Your task to perform on an android device: Check the settings for the Twitter app Image 0: 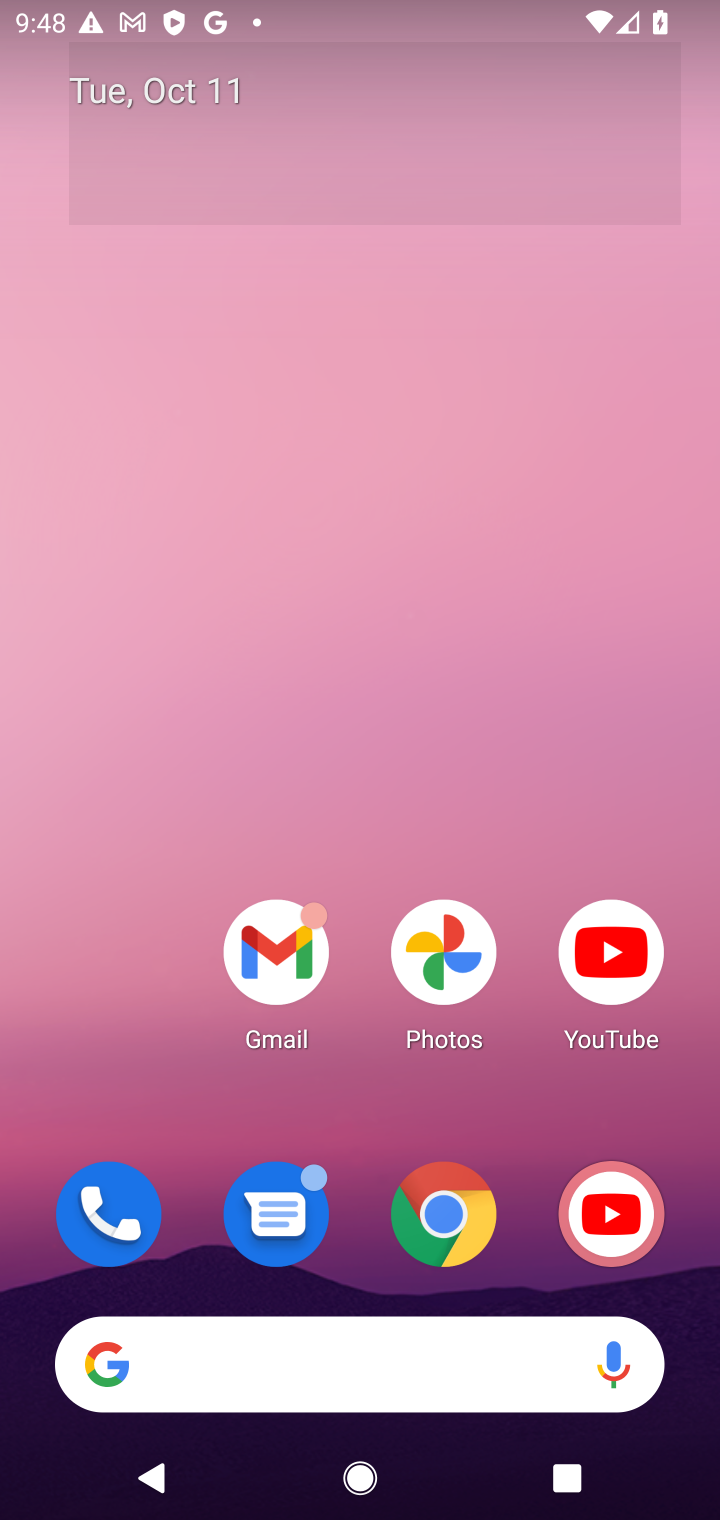
Step 0: drag from (425, 579) to (531, 5)
Your task to perform on an android device: Check the settings for the Twitter app Image 1: 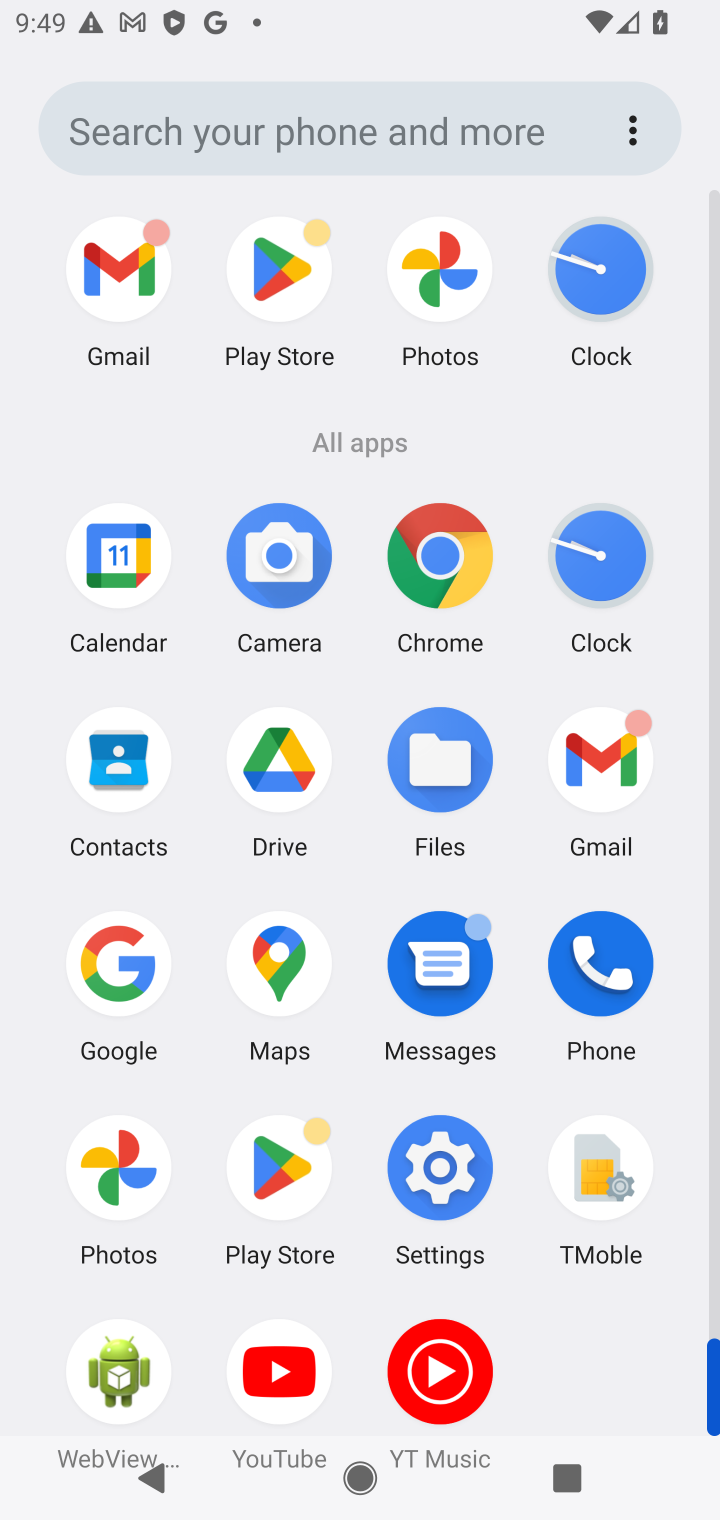
Step 1: task complete